Your task to perform on an android device: turn on notifications settings in the gmail app Image 0: 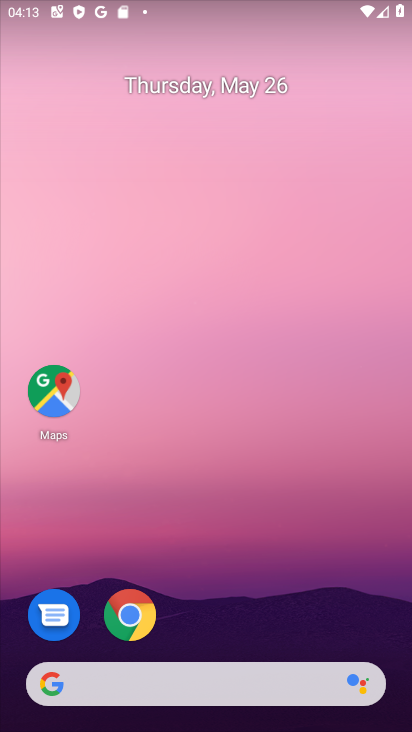
Step 0: press home button
Your task to perform on an android device: turn on notifications settings in the gmail app Image 1: 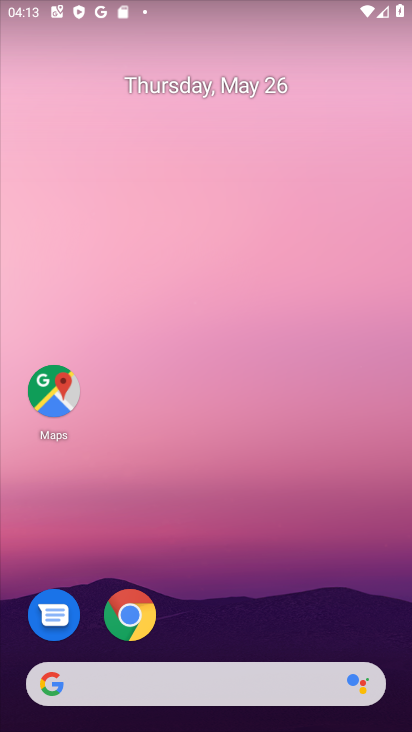
Step 1: drag from (220, 618) to (229, 189)
Your task to perform on an android device: turn on notifications settings in the gmail app Image 2: 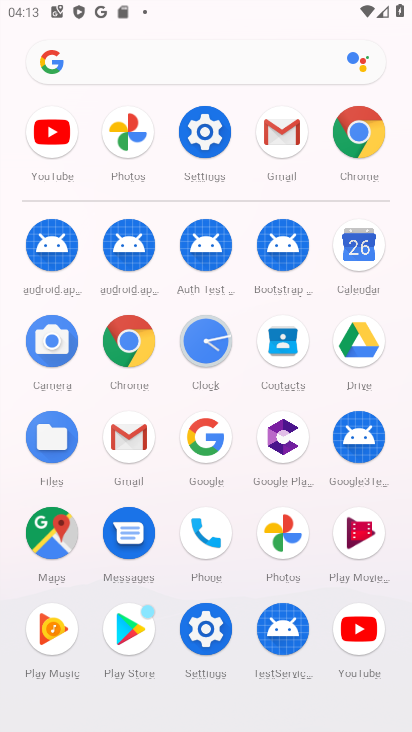
Step 2: click (130, 440)
Your task to perform on an android device: turn on notifications settings in the gmail app Image 3: 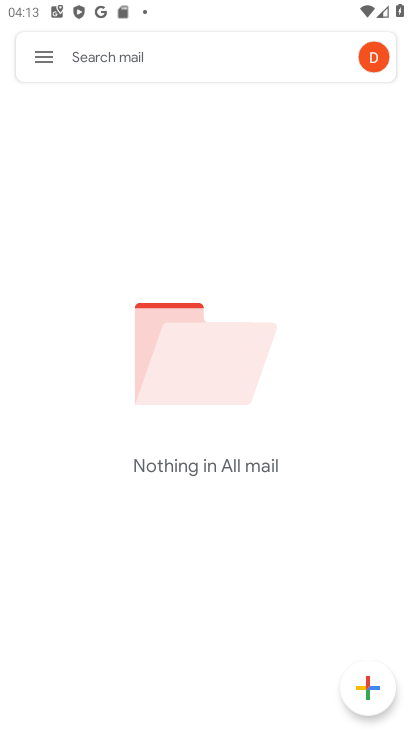
Step 3: click (36, 55)
Your task to perform on an android device: turn on notifications settings in the gmail app Image 4: 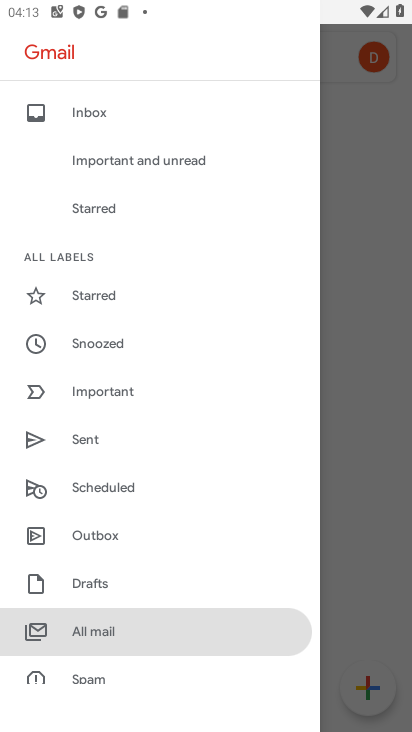
Step 4: drag from (133, 661) to (160, 366)
Your task to perform on an android device: turn on notifications settings in the gmail app Image 5: 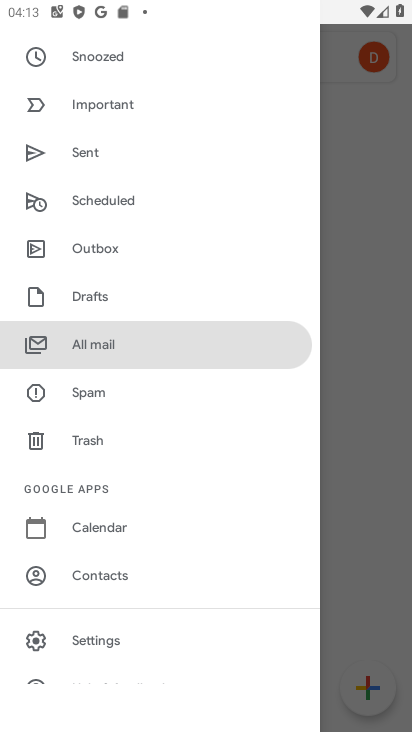
Step 5: click (109, 639)
Your task to perform on an android device: turn on notifications settings in the gmail app Image 6: 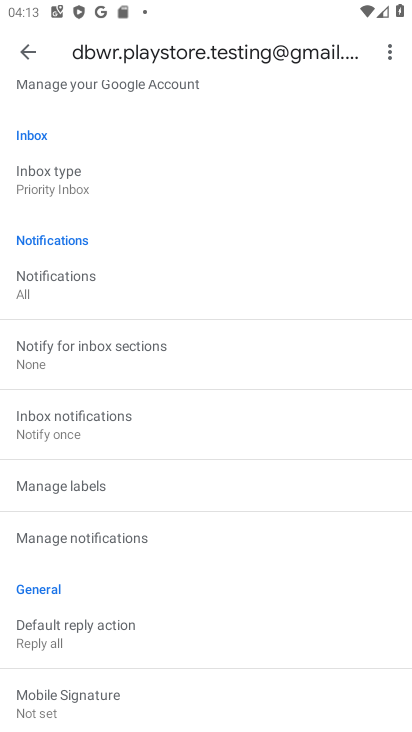
Step 6: click (77, 548)
Your task to perform on an android device: turn on notifications settings in the gmail app Image 7: 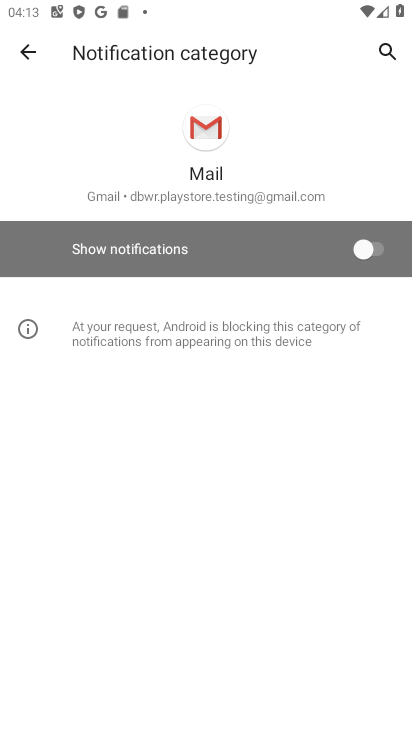
Step 7: click (373, 255)
Your task to perform on an android device: turn on notifications settings in the gmail app Image 8: 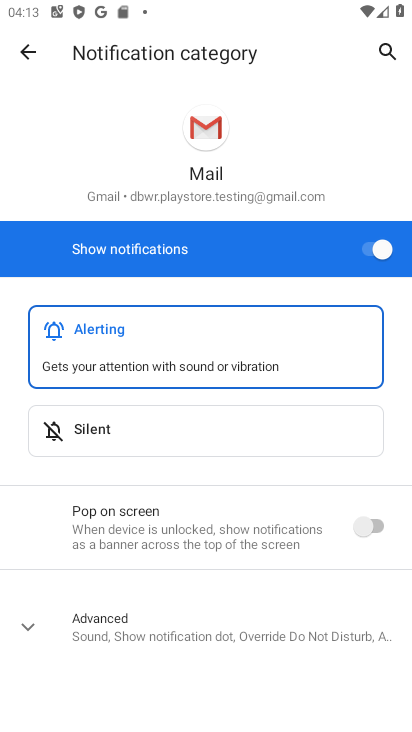
Step 8: task complete